Your task to perform on an android device: Open Google Chrome Image 0: 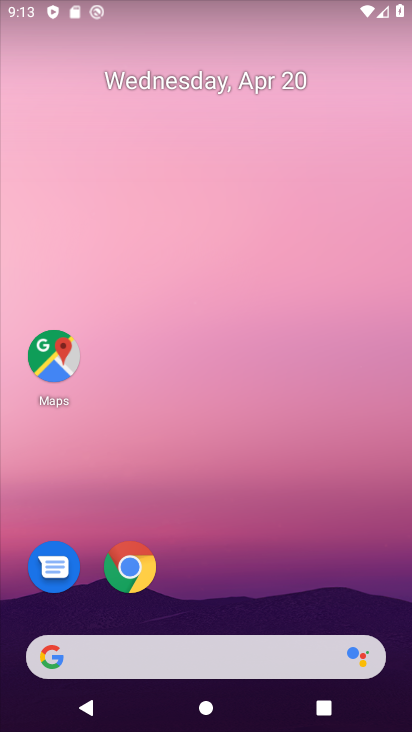
Step 0: click (131, 558)
Your task to perform on an android device: Open Google Chrome Image 1: 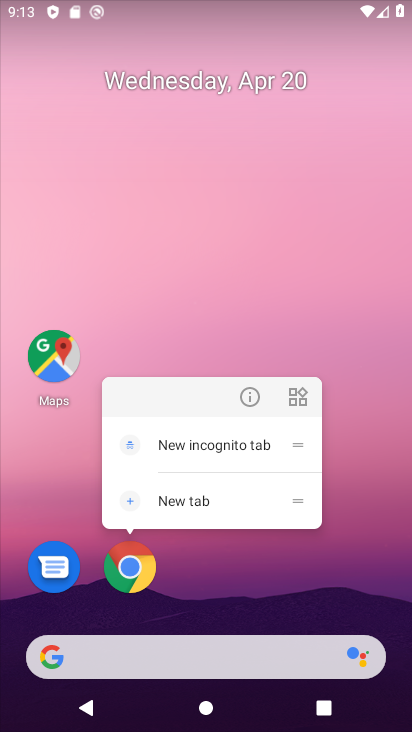
Step 1: click (127, 570)
Your task to perform on an android device: Open Google Chrome Image 2: 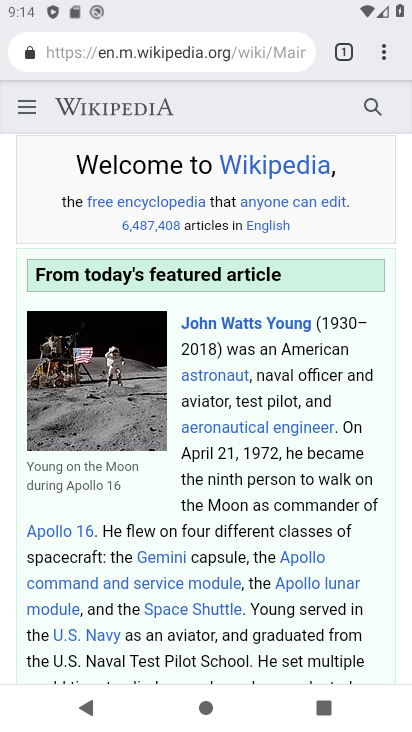
Step 2: task complete